Your task to perform on an android device: find photos in the google photos app Image 0: 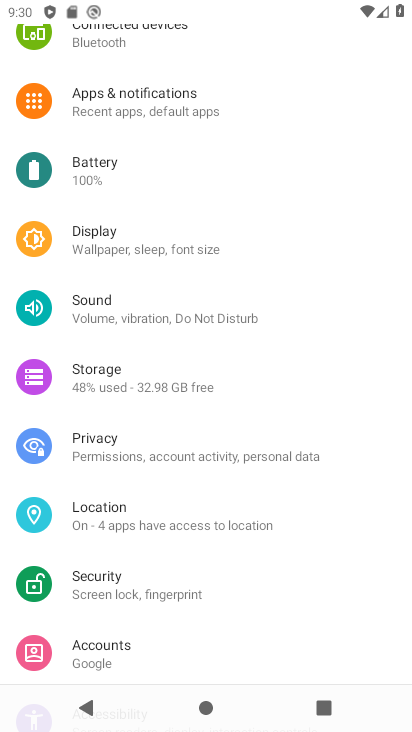
Step 0: press home button
Your task to perform on an android device: find photos in the google photos app Image 1: 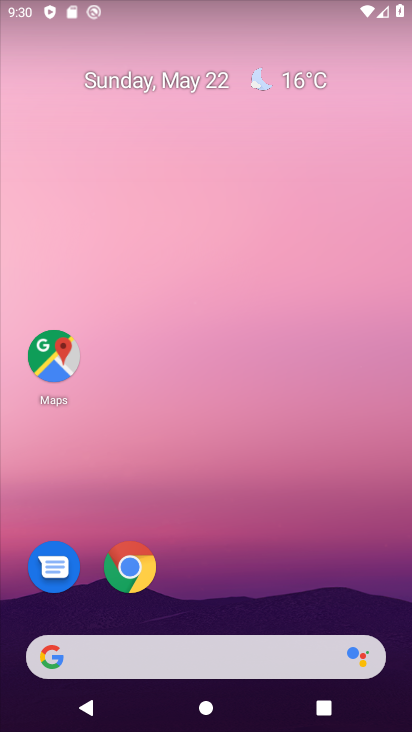
Step 1: drag from (232, 630) to (176, 86)
Your task to perform on an android device: find photos in the google photos app Image 2: 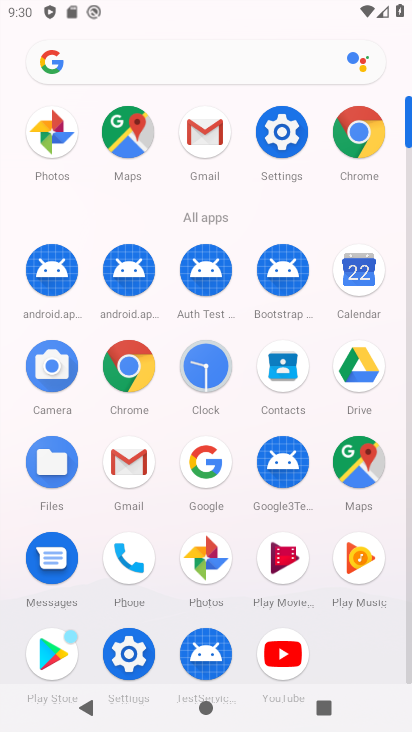
Step 2: click (199, 554)
Your task to perform on an android device: find photos in the google photos app Image 3: 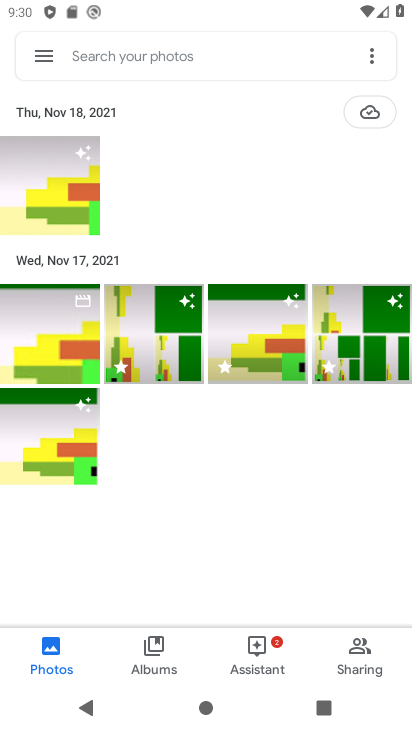
Step 3: task complete